Your task to perform on an android device: open app "Microsoft Authenticator" (install if not already installed) Image 0: 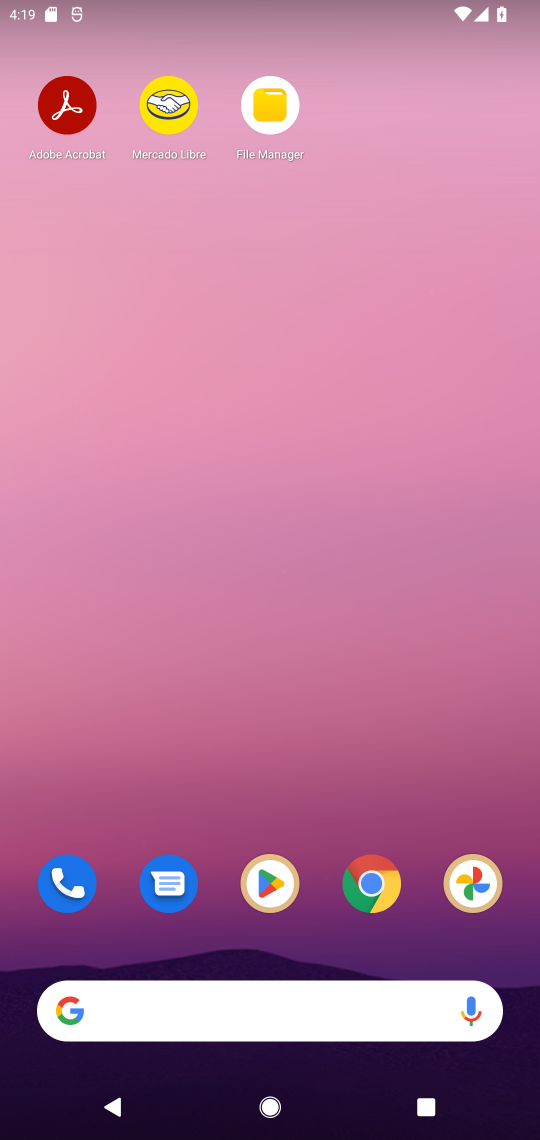
Step 0: drag from (215, 991) to (316, 97)
Your task to perform on an android device: open app "Microsoft Authenticator" (install if not already installed) Image 1: 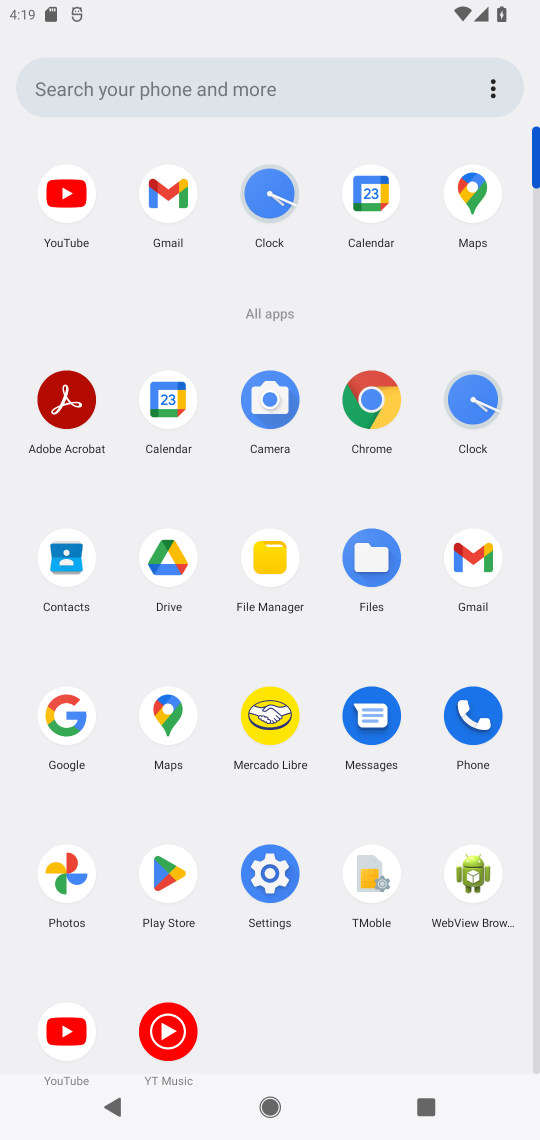
Step 1: click (167, 874)
Your task to perform on an android device: open app "Microsoft Authenticator" (install if not already installed) Image 2: 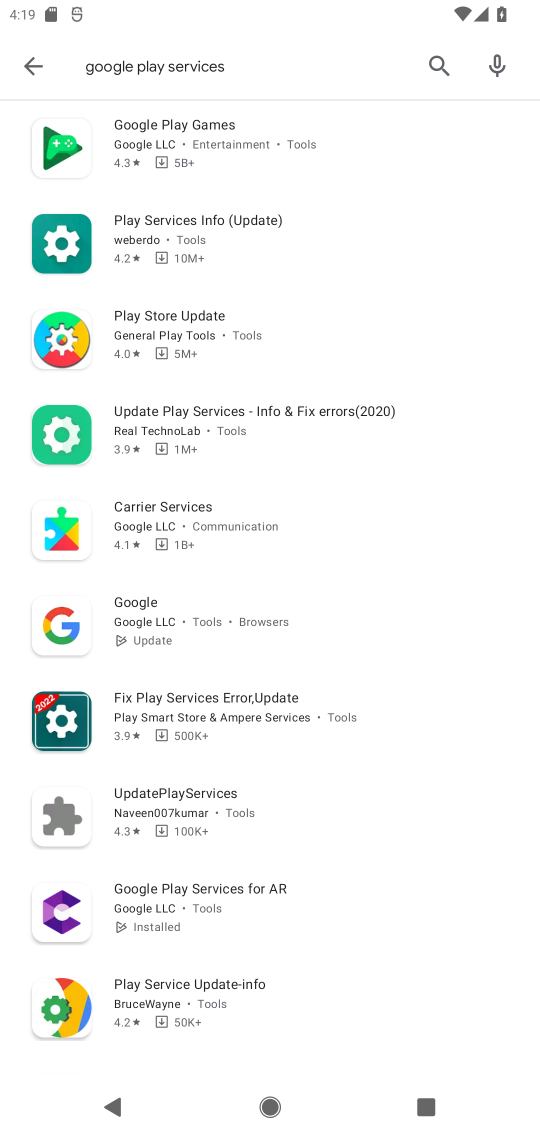
Step 2: click (432, 62)
Your task to perform on an android device: open app "Microsoft Authenticator" (install if not already installed) Image 3: 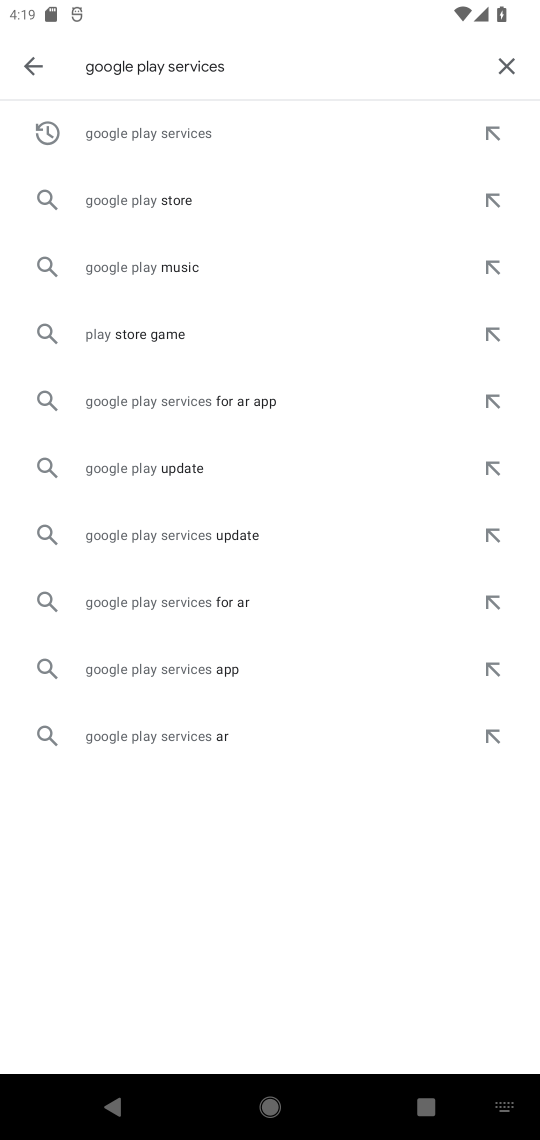
Step 3: click (502, 67)
Your task to perform on an android device: open app "Microsoft Authenticator" (install if not already installed) Image 4: 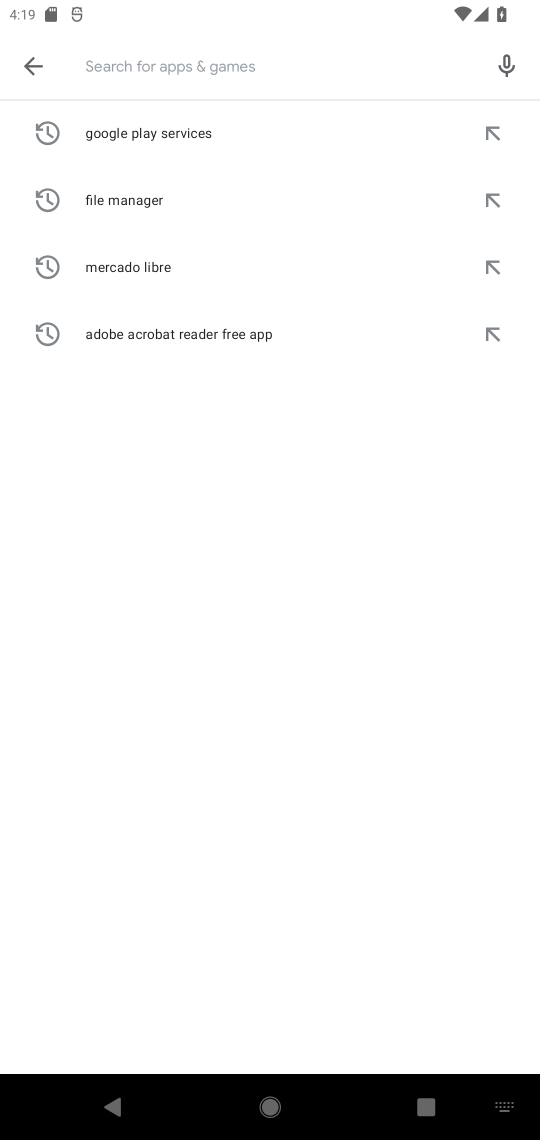
Step 4: type "Microsoft Authenticator"
Your task to perform on an android device: open app "Microsoft Authenticator" (install if not already installed) Image 5: 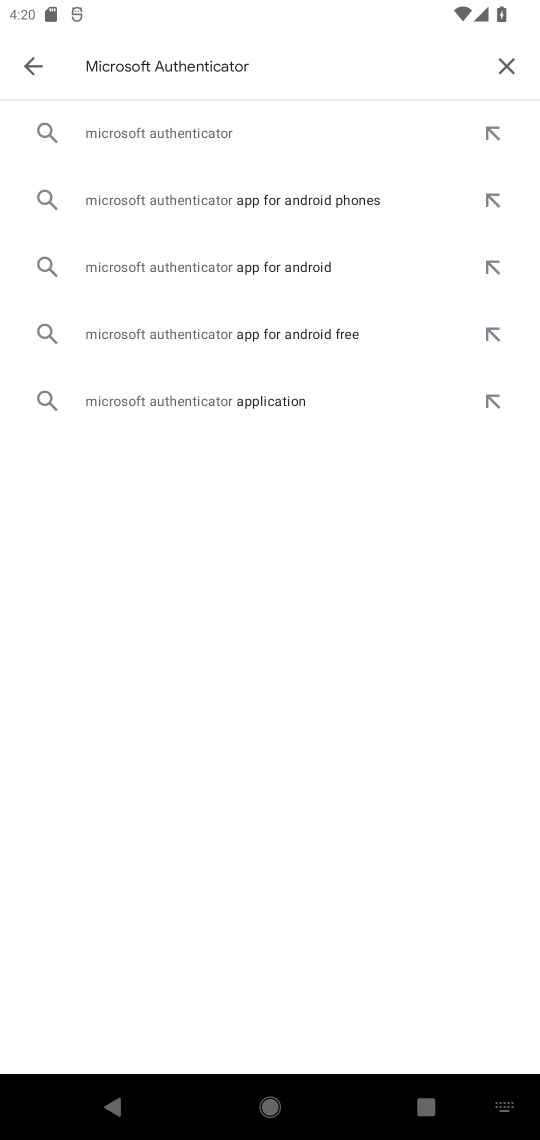
Step 5: click (157, 133)
Your task to perform on an android device: open app "Microsoft Authenticator" (install if not already installed) Image 6: 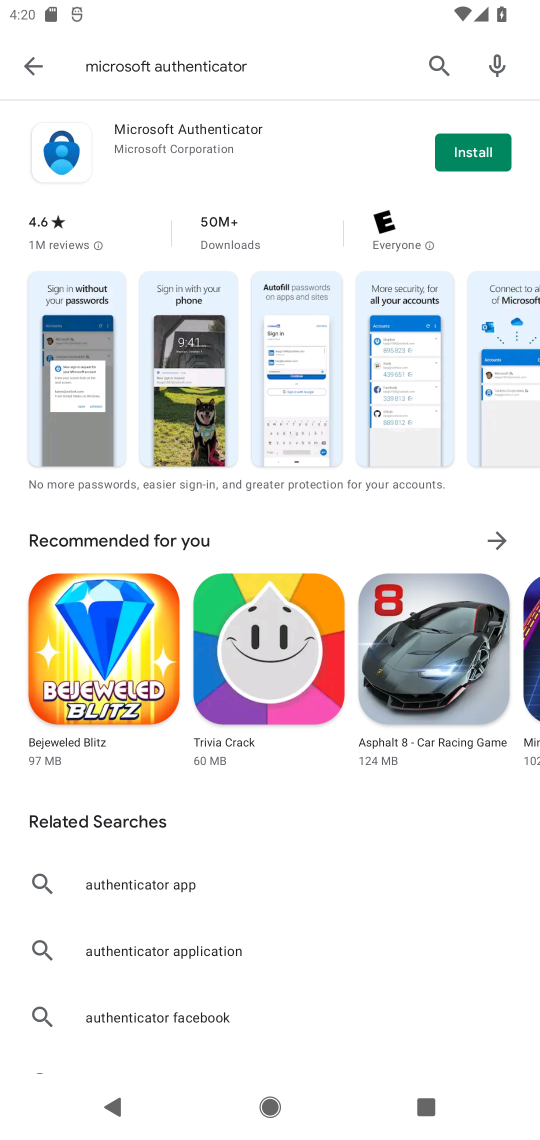
Step 6: click (485, 146)
Your task to perform on an android device: open app "Microsoft Authenticator" (install if not already installed) Image 7: 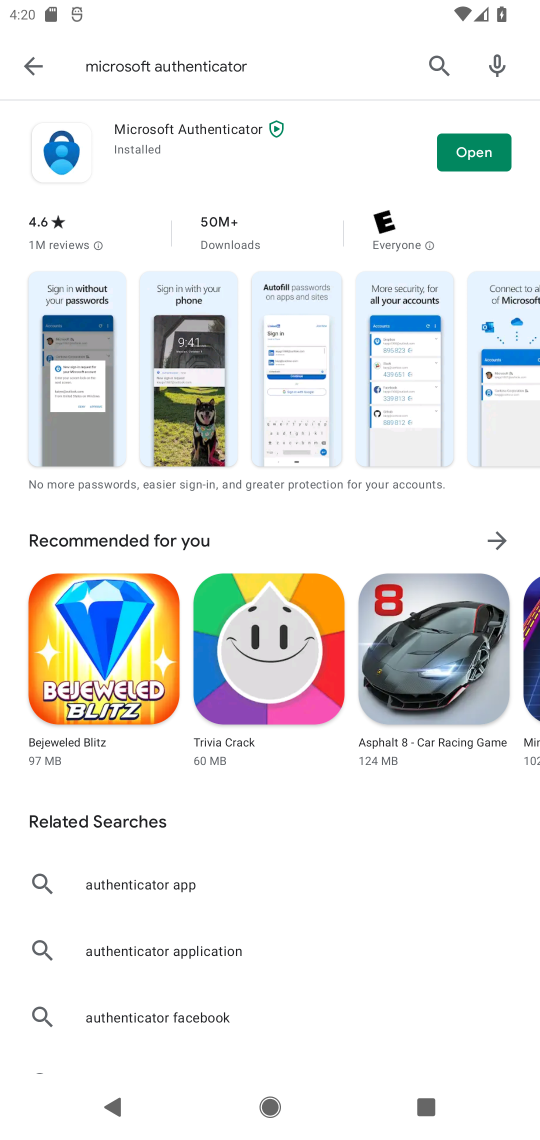
Step 7: click (478, 151)
Your task to perform on an android device: open app "Microsoft Authenticator" (install if not already installed) Image 8: 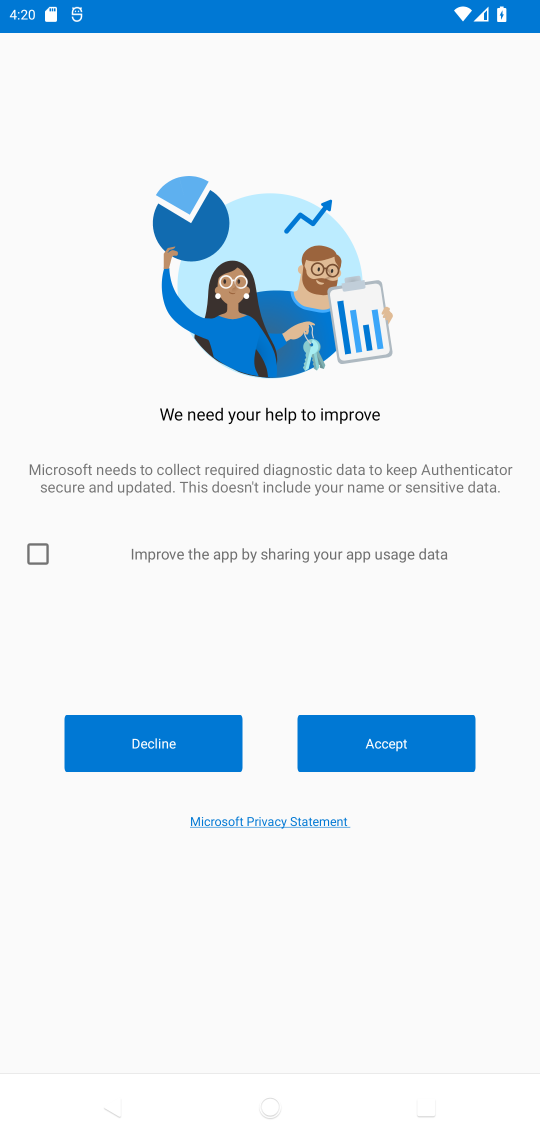
Step 8: task complete